Your task to perform on an android device: change the clock display to analog Image 0: 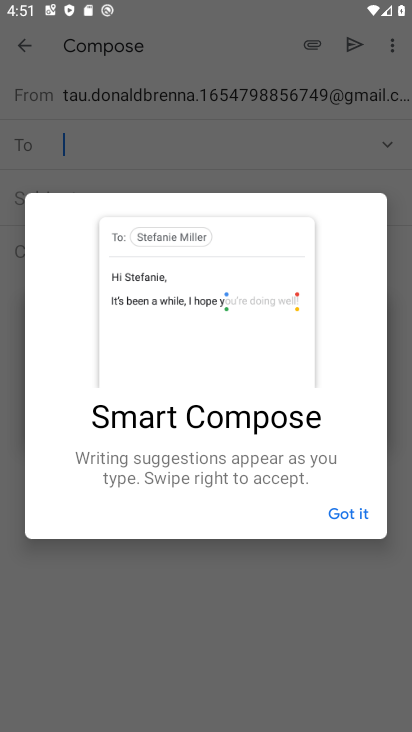
Step 0: press home button
Your task to perform on an android device: change the clock display to analog Image 1: 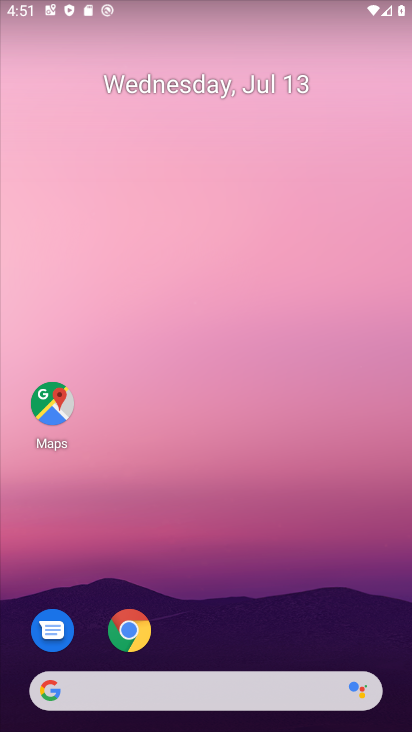
Step 1: drag from (190, 673) to (235, 86)
Your task to perform on an android device: change the clock display to analog Image 2: 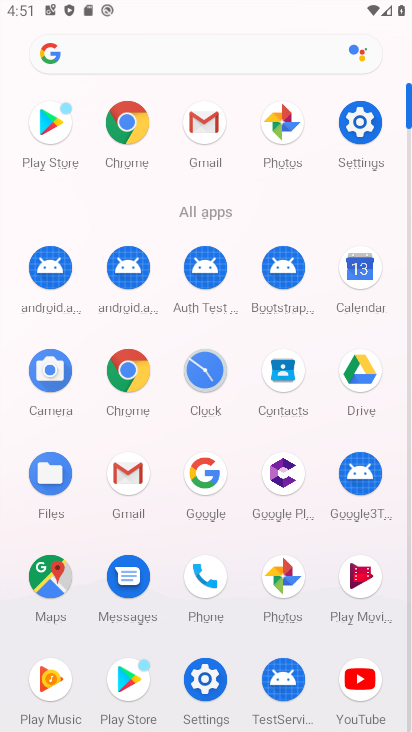
Step 2: click (198, 360)
Your task to perform on an android device: change the clock display to analog Image 3: 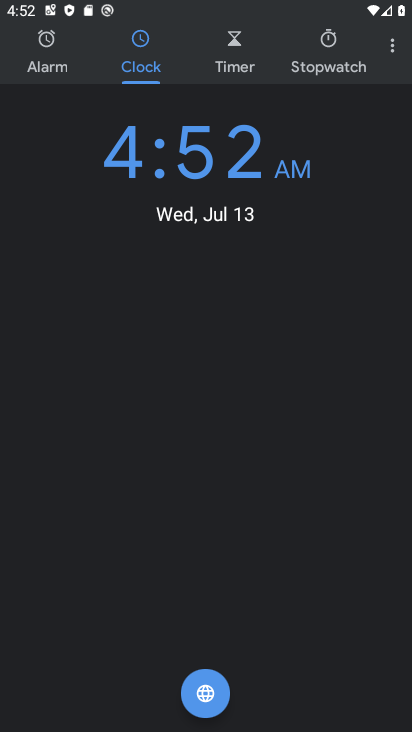
Step 3: click (390, 41)
Your task to perform on an android device: change the clock display to analog Image 4: 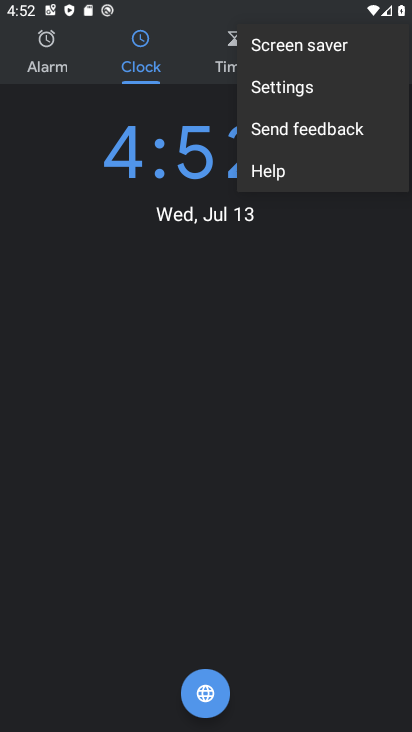
Step 4: click (351, 83)
Your task to perform on an android device: change the clock display to analog Image 5: 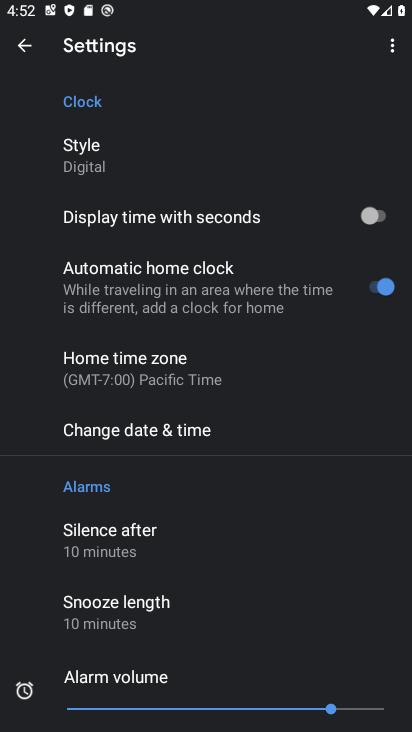
Step 5: click (137, 157)
Your task to perform on an android device: change the clock display to analog Image 6: 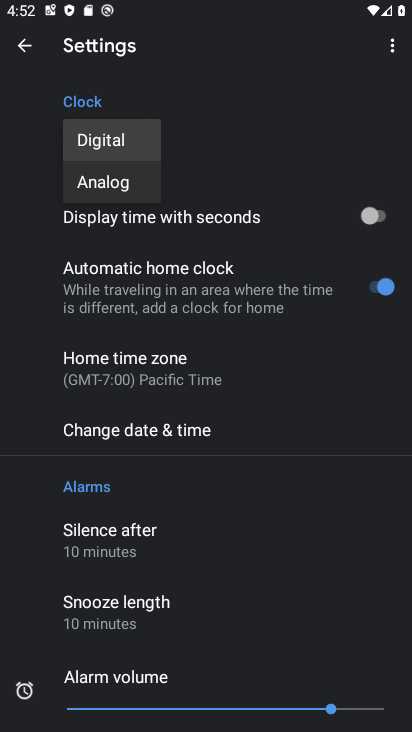
Step 6: click (134, 177)
Your task to perform on an android device: change the clock display to analog Image 7: 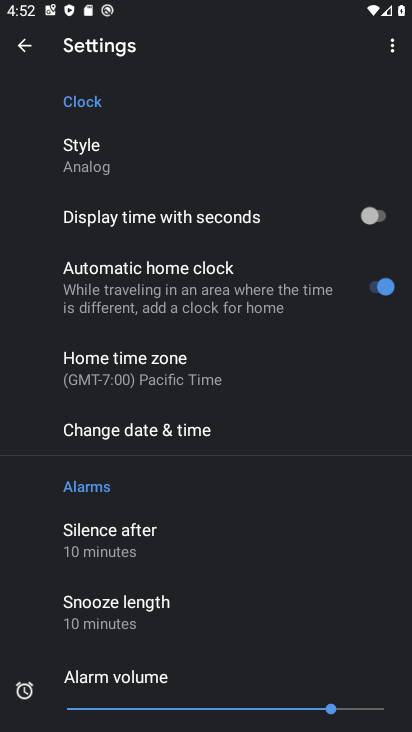
Step 7: task complete